Your task to perform on an android device: check the backup settings in the google photos Image 0: 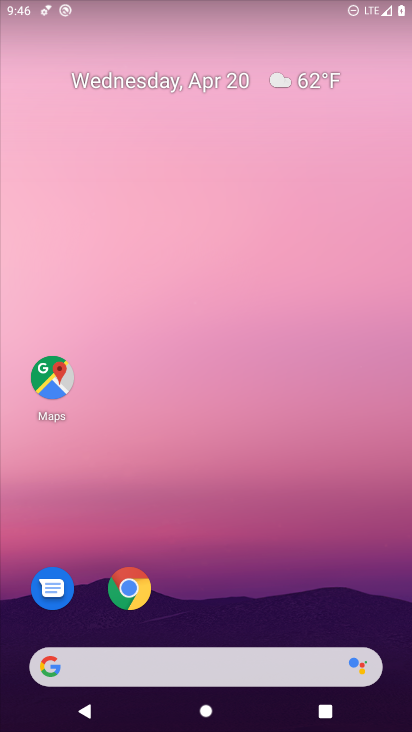
Step 0: drag from (211, 616) to (275, 146)
Your task to perform on an android device: check the backup settings in the google photos Image 1: 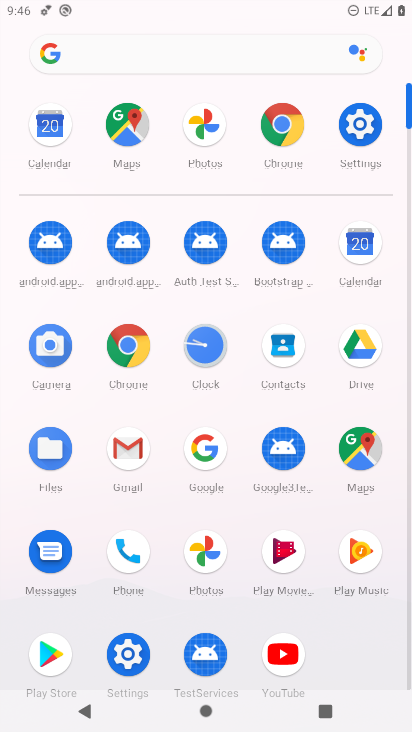
Step 1: click (206, 544)
Your task to perform on an android device: check the backup settings in the google photos Image 2: 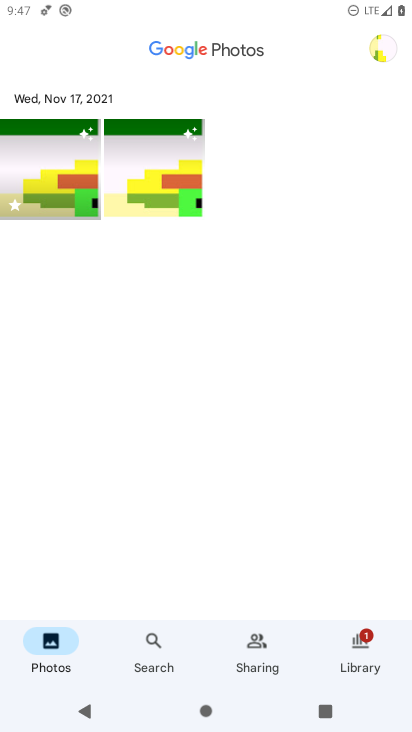
Step 2: click (379, 49)
Your task to perform on an android device: check the backup settings in the google photos Image 3: 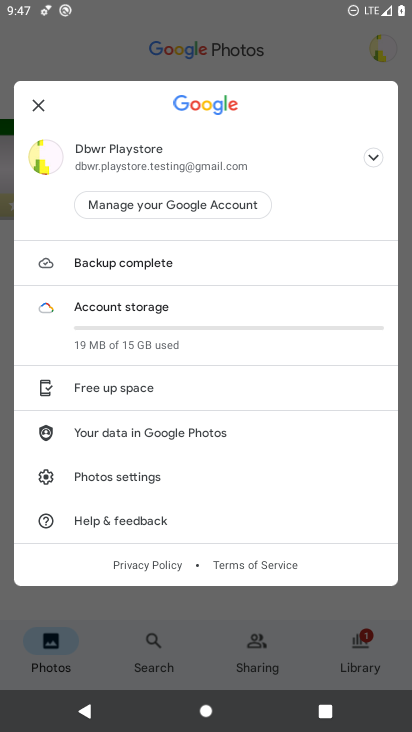
Step 3: click (117, 263)
Your task to perform on an android device: check the backup settings in the google photos Image 4: 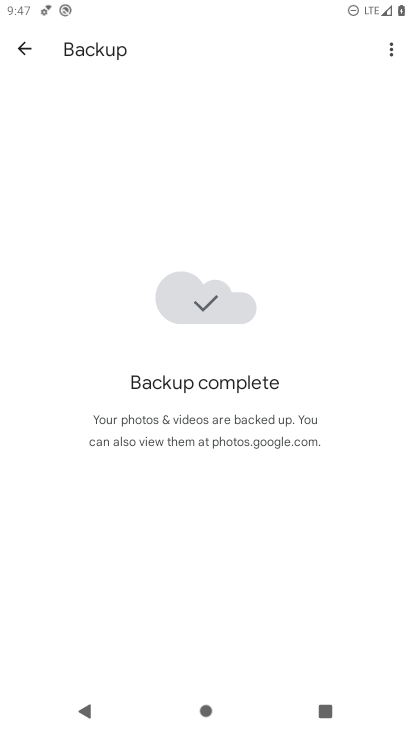
Step 4: click (387, 38)
Your task to perform on an android device: check the backup settings in the google photos Image 5: 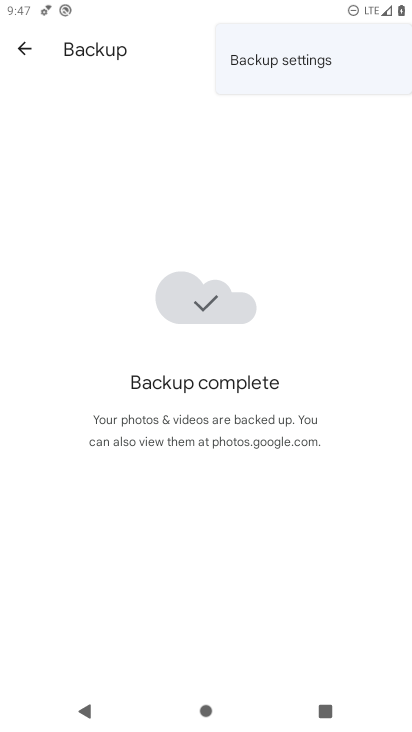
Step 5: click (286, 65)
Your task to perform on an android device: check the backup settings in the google photos Image 6: 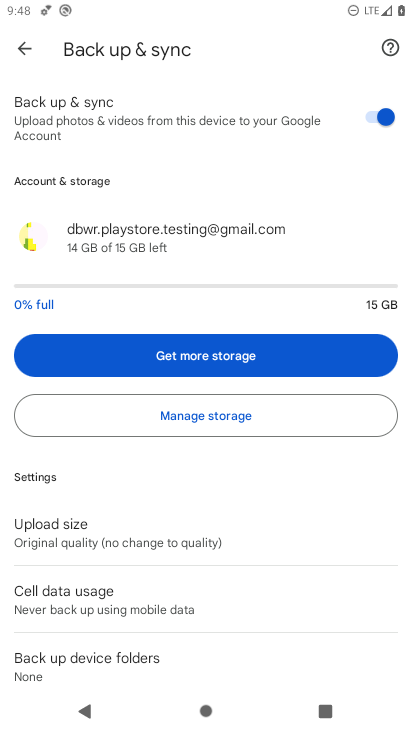
Step 6: task complete